Your task to perform on an android device: Open Yahoo.com Image 0: 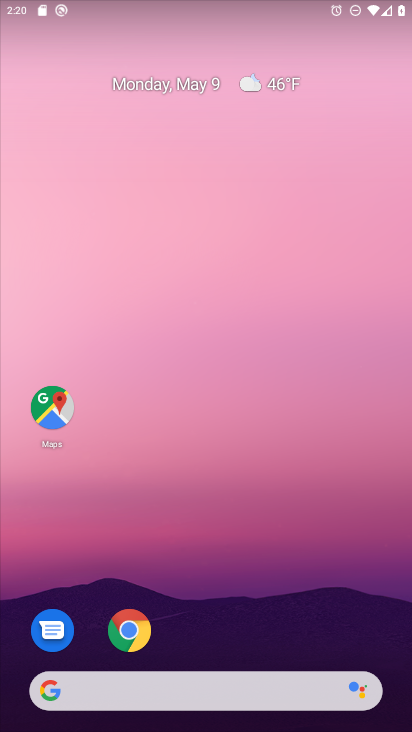
Step 0: drag from (333, 712) to (343, 289)
Your task to perform on an android device: Open Yahoo.com Image 1: 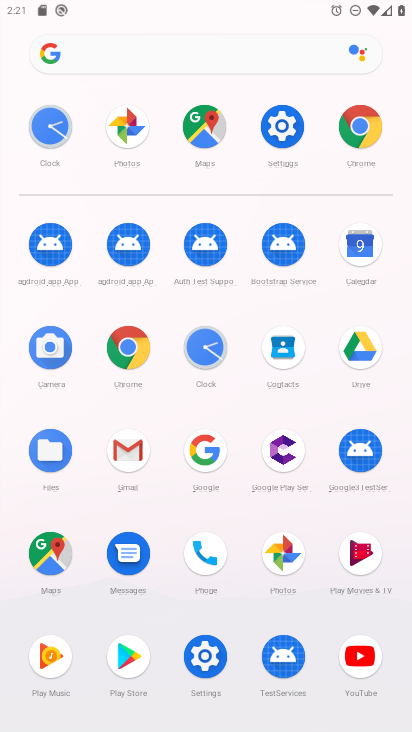
Step 1: click (348, 133)
Your task to perform on an android device: Open Yahoo.com Image 2: 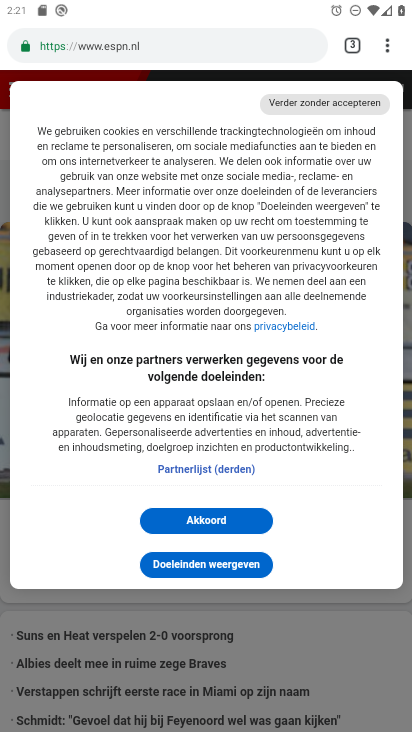
Step 2: click (356, 50)
Your task to perform on an android device: Open Yahoo.com Image 3: 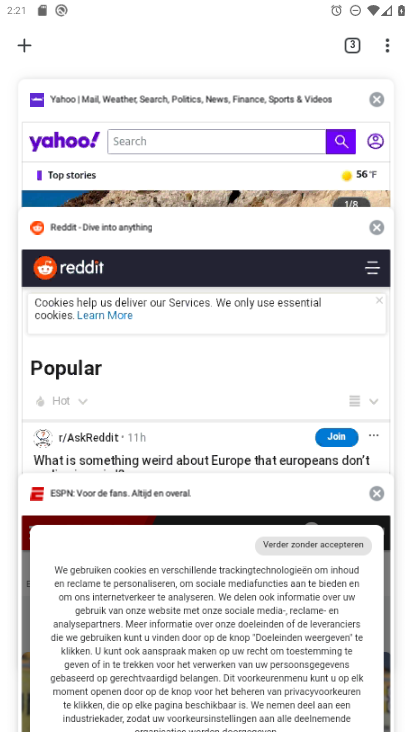
Step 3: click (16, 49)
Your task to perform on an android device: Open Yahoo.com Image 4: 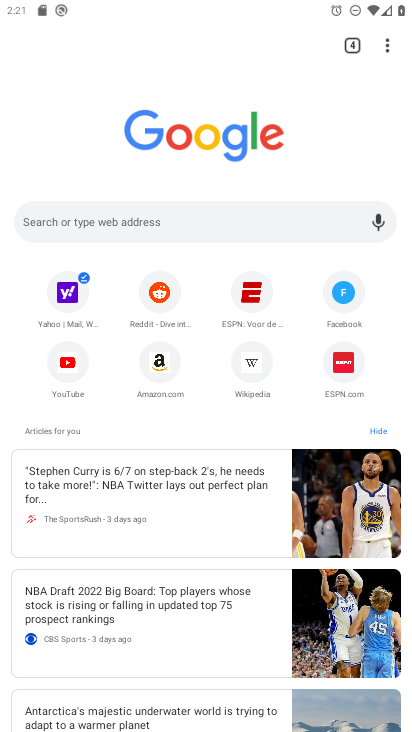
Step 4: click (74, 294)
Your task to perform on an android device: Open Yahoo.com Image 5: 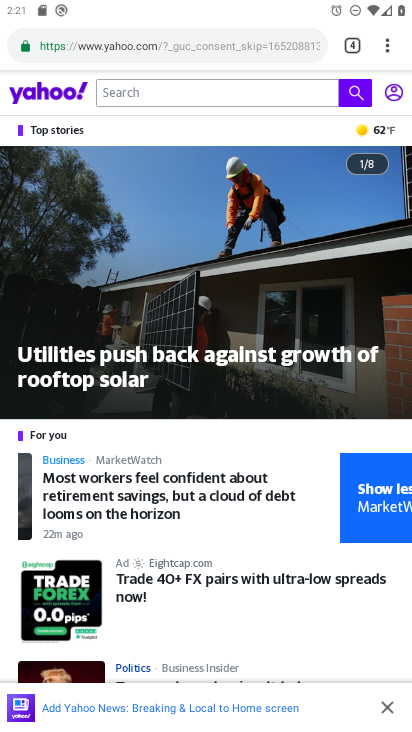
Step 5: task complete